Your task to perform on an android device: Open calendar and show me the third week of next month Image 0: 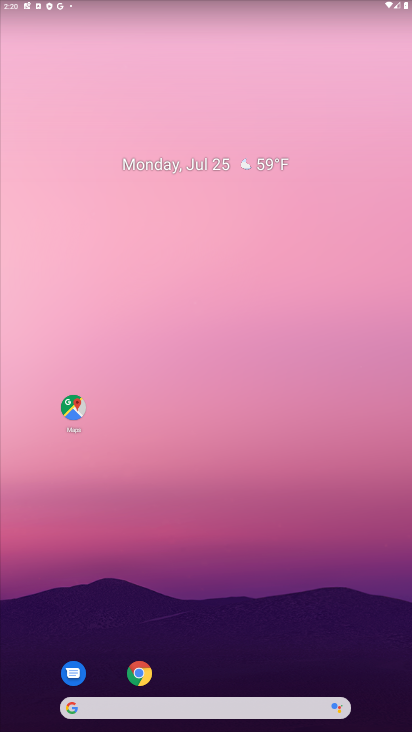
Step 0: click (136, 178)
Your task to perform on an android device: Open calendar and show me the third week of next month Image 1: 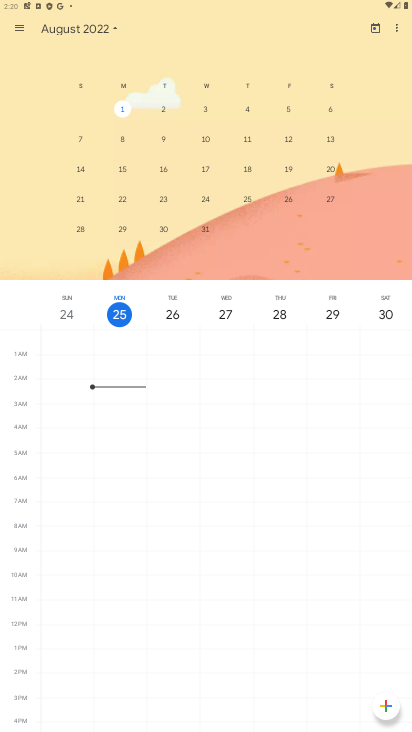
Step 1: click (159, 183)
Your task to perform on an android device: Open calendar and show me the third week of next month Image 2: 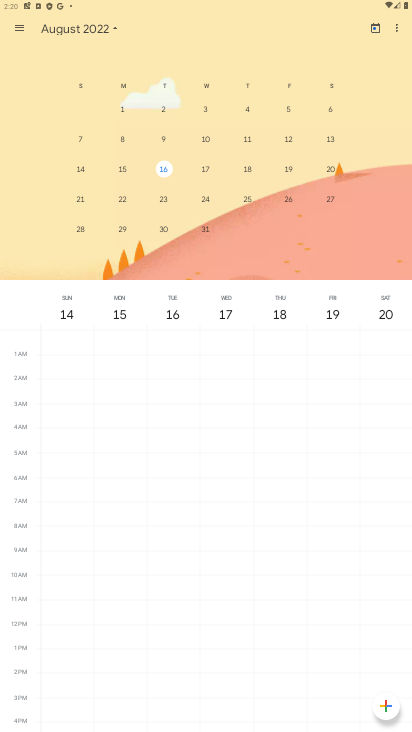
Step 2: click (159, 183)
Your task to perform on an android device: Open calendar and show me the third week of next month Image 3: 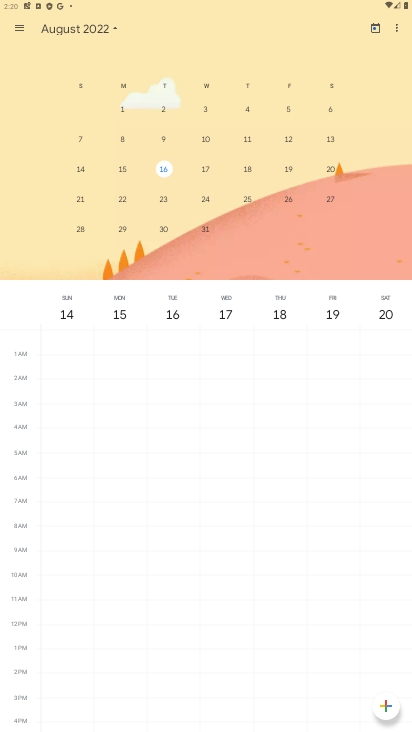
Step 3: task complete